Your task to perform on an android device: check the backup settings in the google photos Image 0: 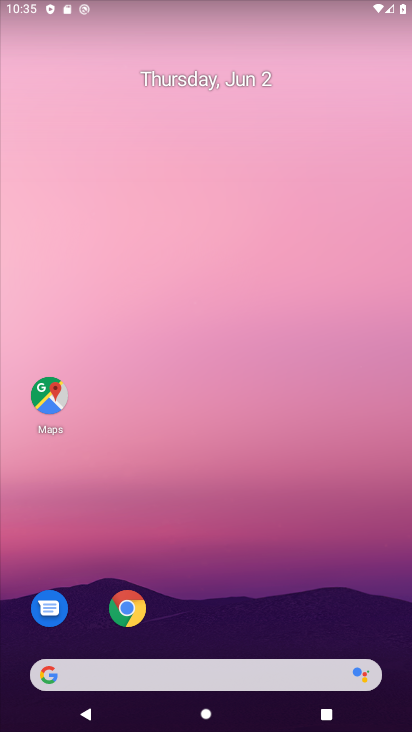
Step 0: drag from (184, 631) to (258, 140)
Your task to perform on an android device: check the backup settings in the google photos Image 1: 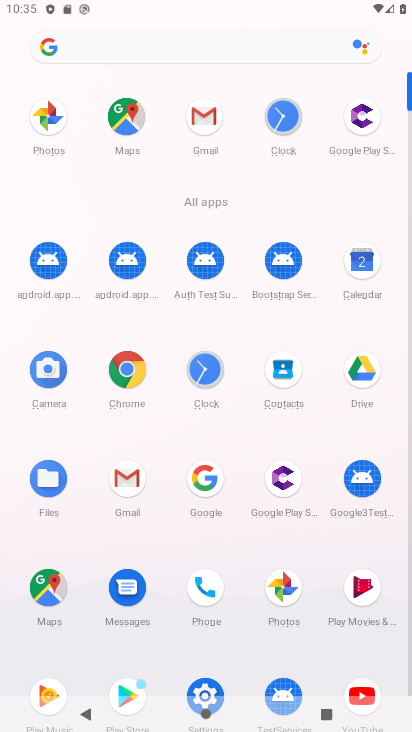
Step 1: click (283, 590)
Your task to perform on an android device: check the backup settings in the google photos Image 2: 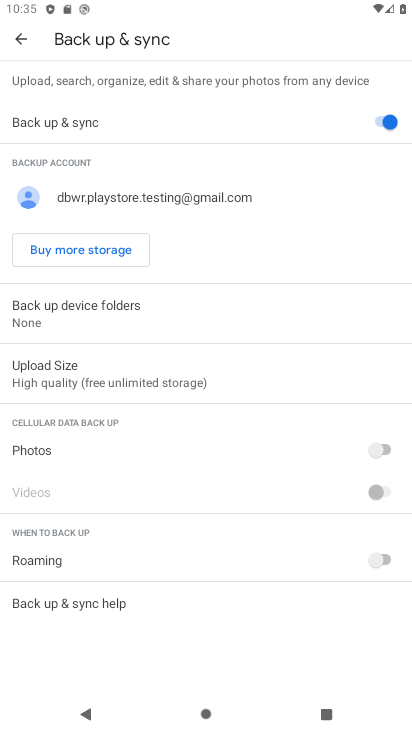
Step 2: task complete